Your task to perform on an android device: Search for seafood restaurants on Google Maps Image 0: 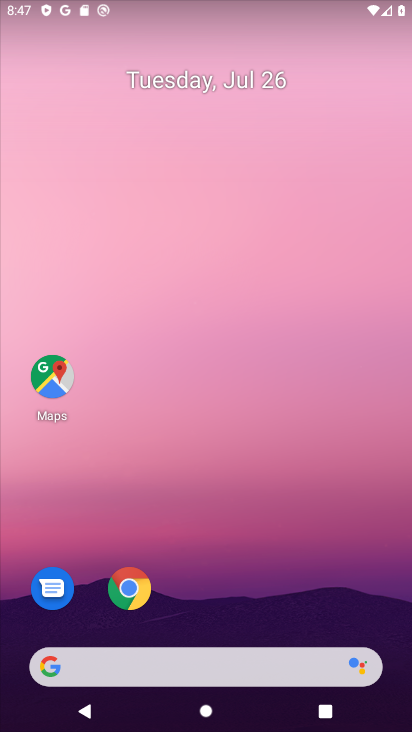
Step 0: press home button
Your task to perform on an android device: Search for seafood restaurants on Google Maps Image 1: 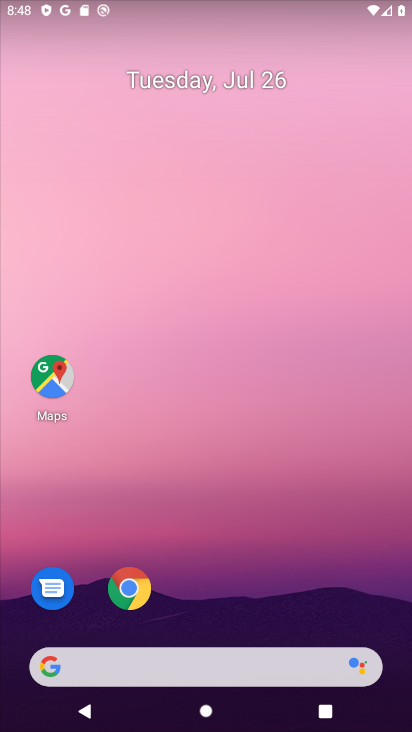
Step 1: click (51, 371)
Your task to perform on an android device: Search for seafood restaurants on Google Maps Image 2: 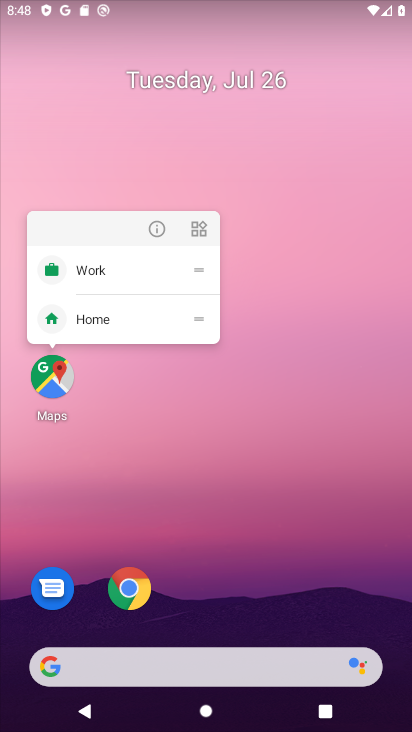
Step 2: click (50, 370)
Your task to perform on an android device: Search for seafood restaurants on Google Maps Image 3: 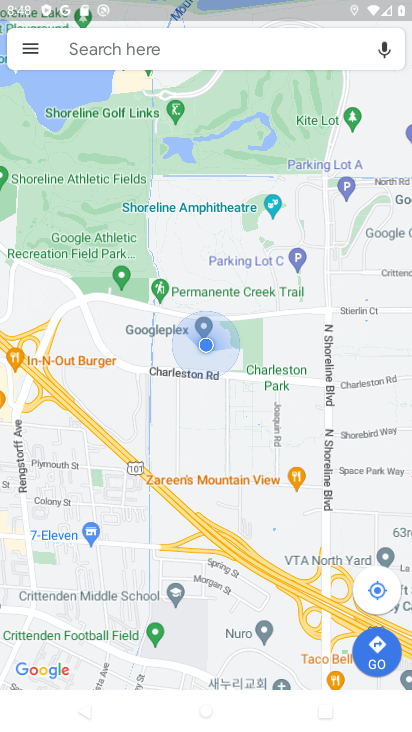
Step 3: click (105, 40)
Your task to perform on an android device: Search for seafood restaurants on Google Maps Image 4: 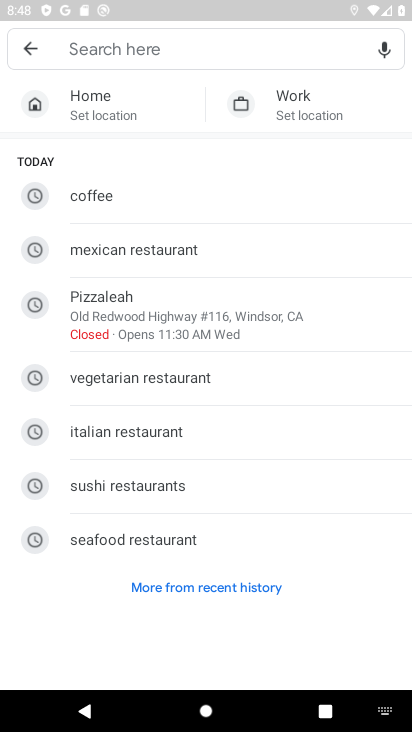
Step 4: click (140, 531)
Your task to perform on an android device: Search for seafood restaurants on Google Maps Image 5: 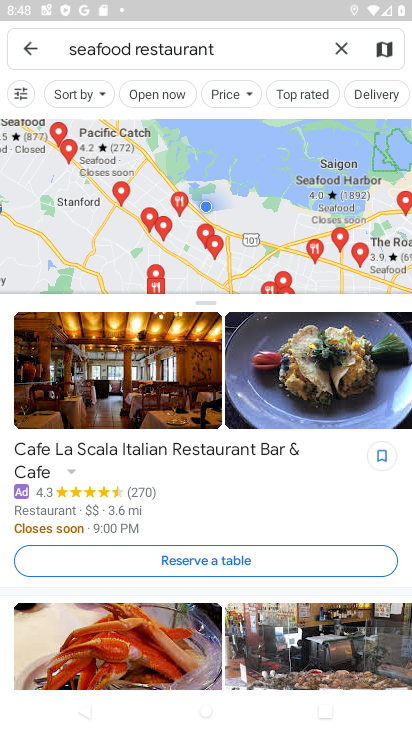
Step 5: task complete